Your task to perform on an android device: Open eBay Image 0: 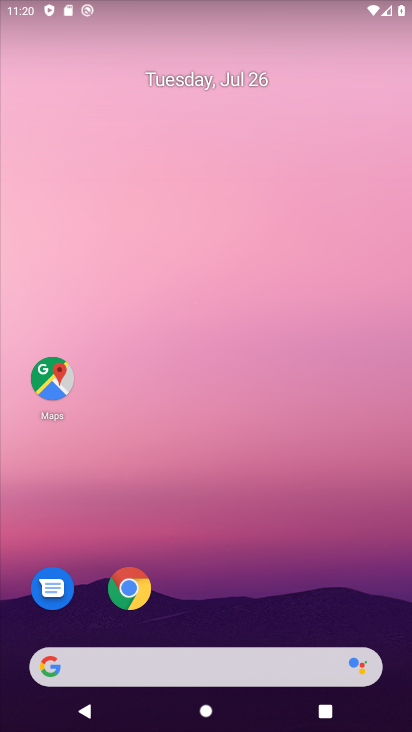
Step 0: click (101, 667)
Your task to perform on an android device: Open eBay Image 1: 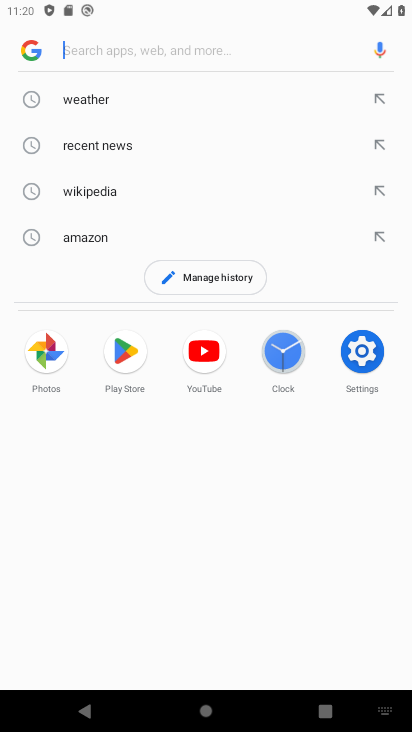
Step 1: type "eBay"
Your task to perform on an android device: Open eBay Image 2: 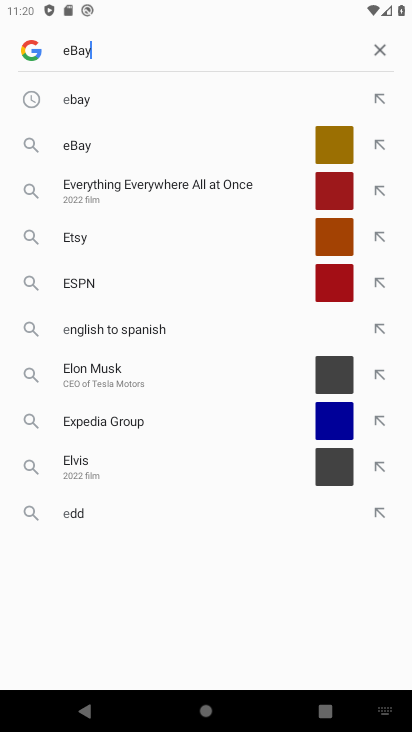
Step 2: type ""
Your task to perform on an android device: Open eBay Image 3: 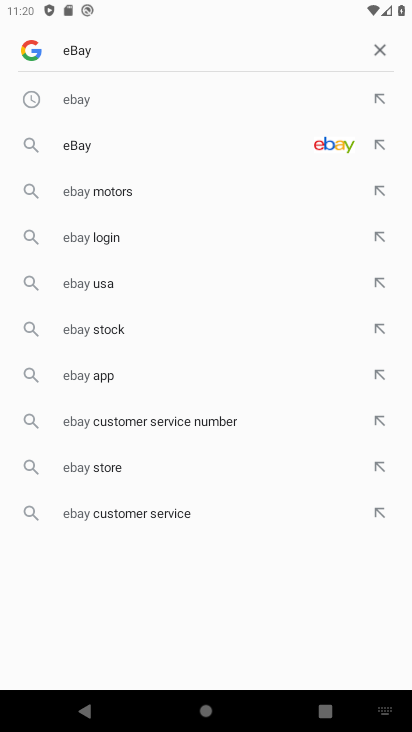
Step 3: click (77, 143)
Your task to perform on an android device: Open eBay Image 4: 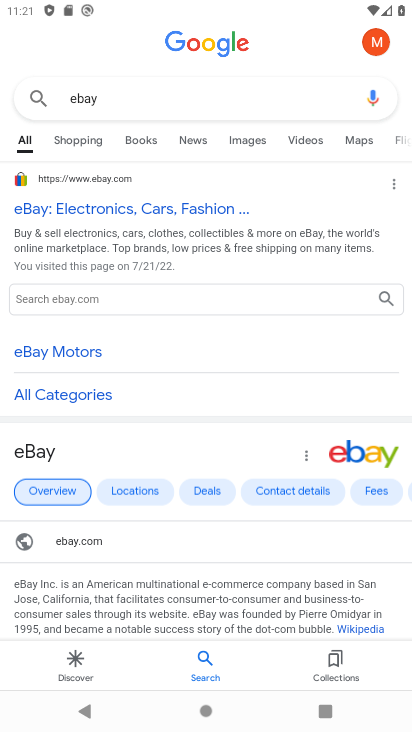
Step 4: task complete